Your task to perform on an android device: Is it going to rain this weekend? Image 0: 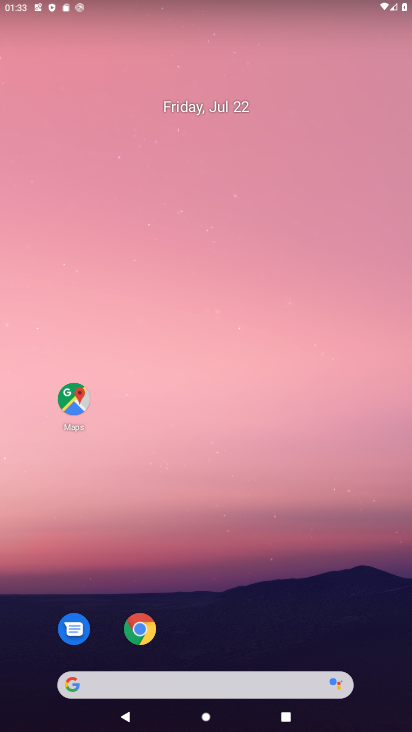
Step 0: click (128, 692)
Your task to perform on an android device: Is it going to rain this weekend? Image 1: 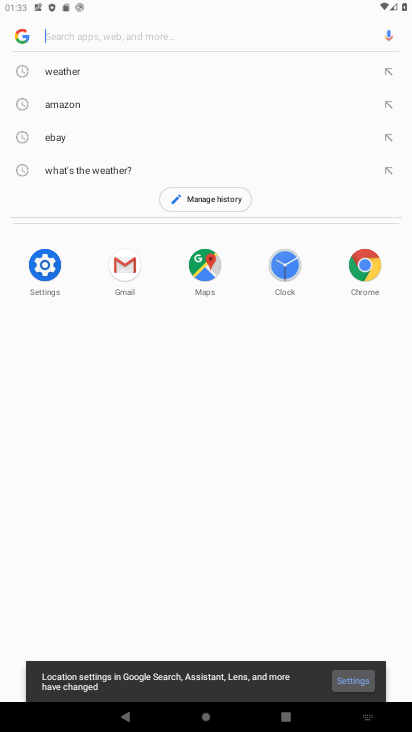
Step 1: click (58, 74)
Your task to perform on an android device: Is it going to rain this weekend? Image 2: 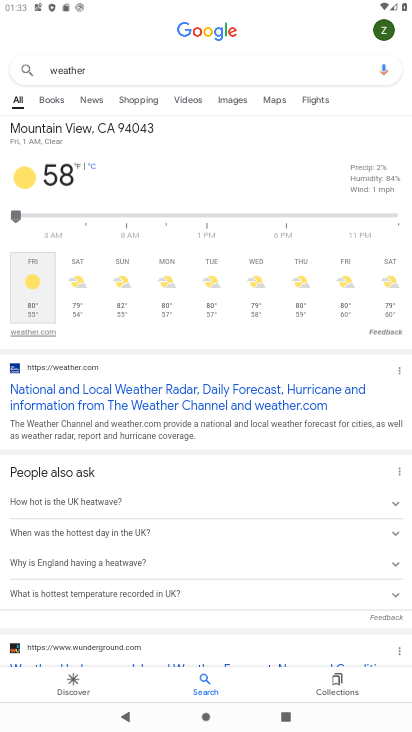
Step 2: task complete